Your task to perform on an android device: check battery use Image 0: 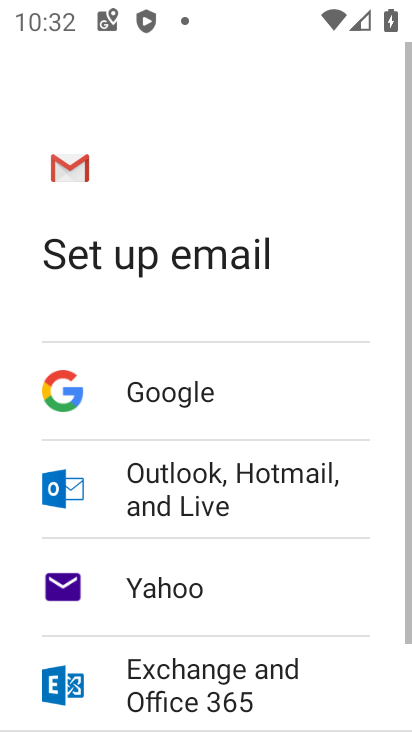
Step 0: press home button
Your task to perform on an android device: check battery use Image 1: 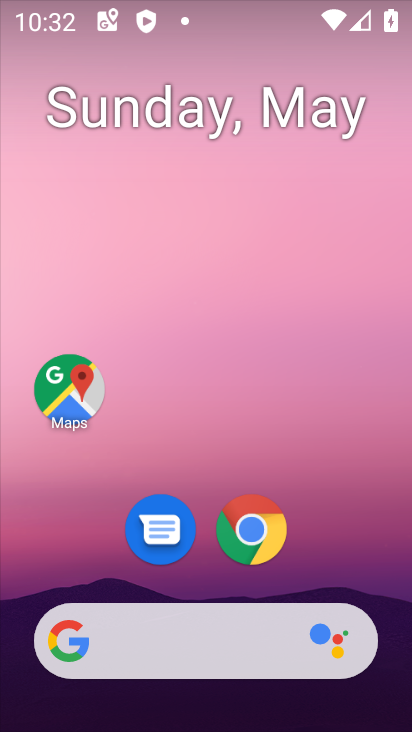
Step 1: drag from (211, 628) to (207, 181)
Your task to perform on an android device: check battery use Image 2: 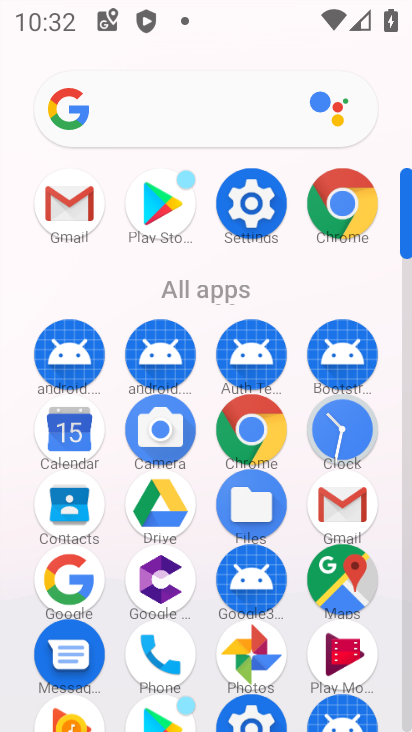
Step 2: click (257, 195)
Your task to perform on an android device: check battery use Image 3: 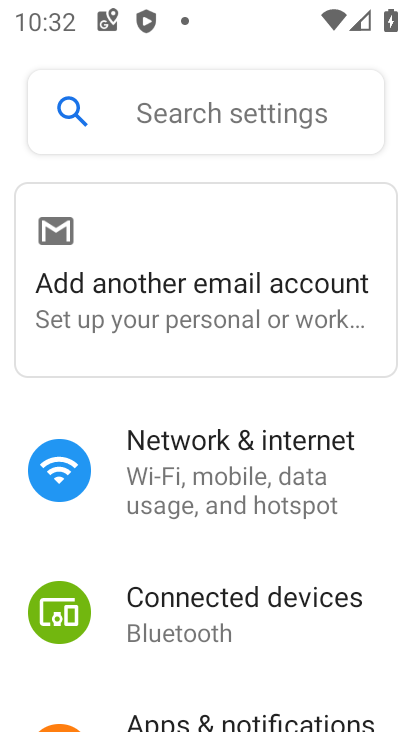
Step 3: drag from (201, 641) to (175, 71)
Your task to perform on an android device: check battery use Image 4: 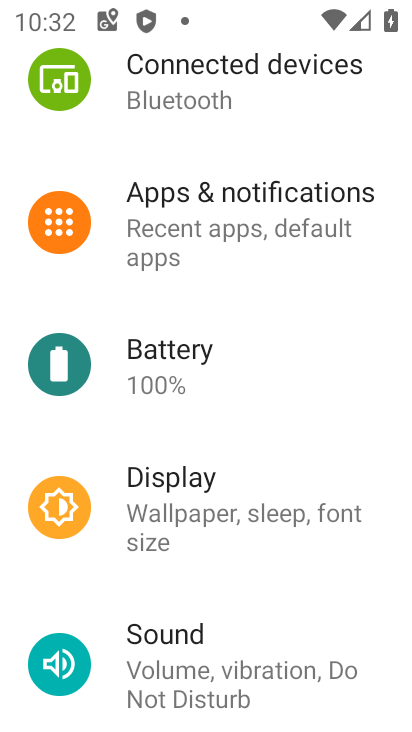
Step 4: click (143, 349)
Your task to perform on an android device: check battery use Image 5: 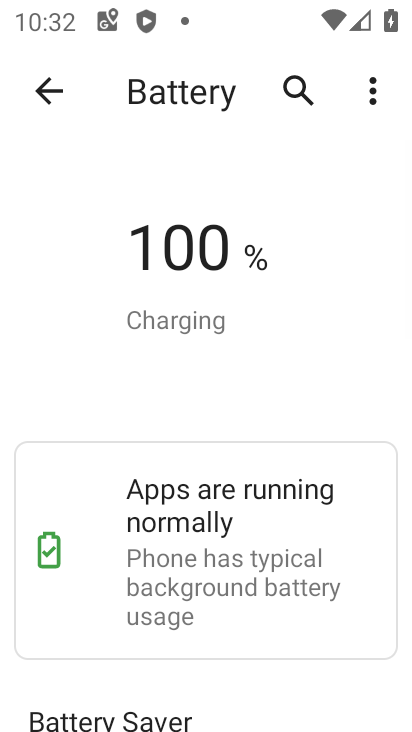
Step 5: drag from (188, 644) to (143, 36)
Your task to perform on an android device: check battery use Image 6: 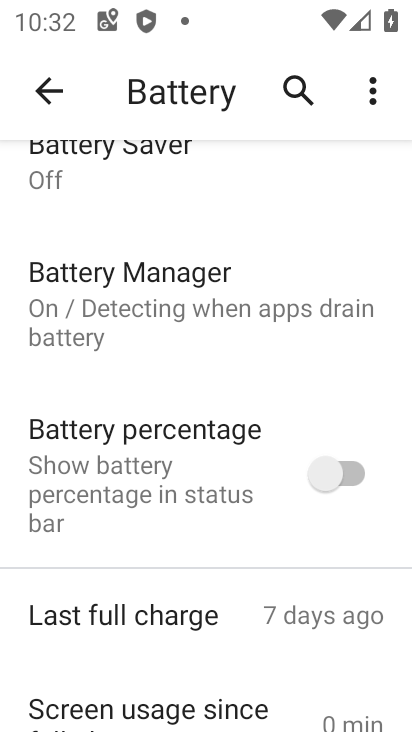
Step 6: drag from (184, 185) to (176, 674)
Your task to perform on an android device: check battery use Image 7: 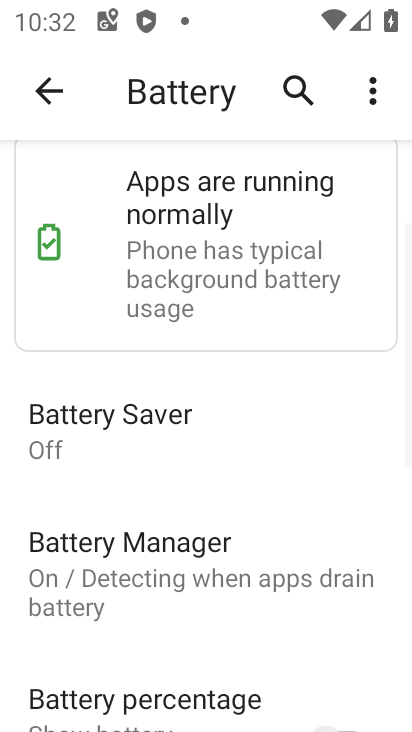
Step 7: click (372, 84)
Your task to perform on an android device: check battery use Image 8: 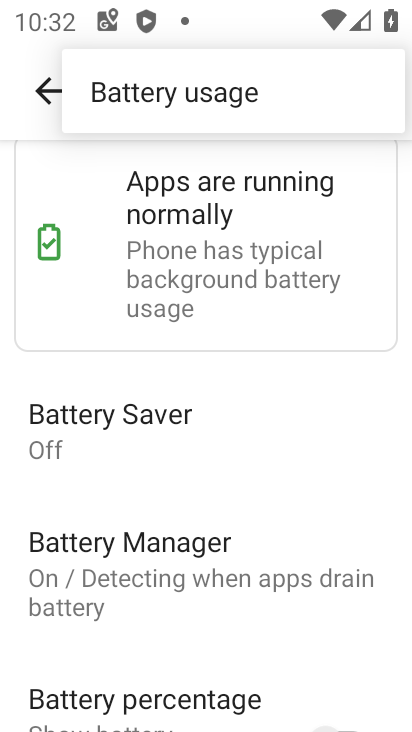
Step 8: click (287, 113)
Your task to perform on an android device: check battery use Image 9: 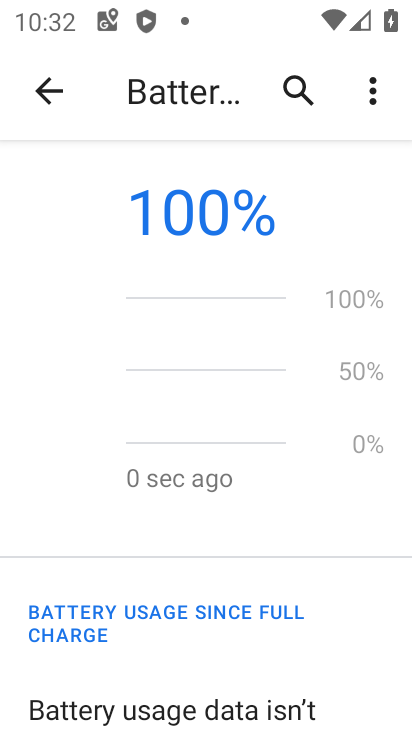
Step 9: task complete